Your task to perform on an android device: Go to Android settings Image 0: 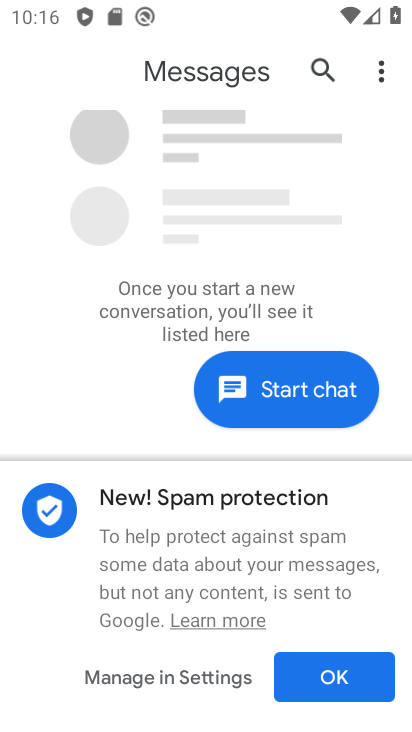
Step 0: press home button
Your task to perform on an android device: Go to Android settings Image 1: 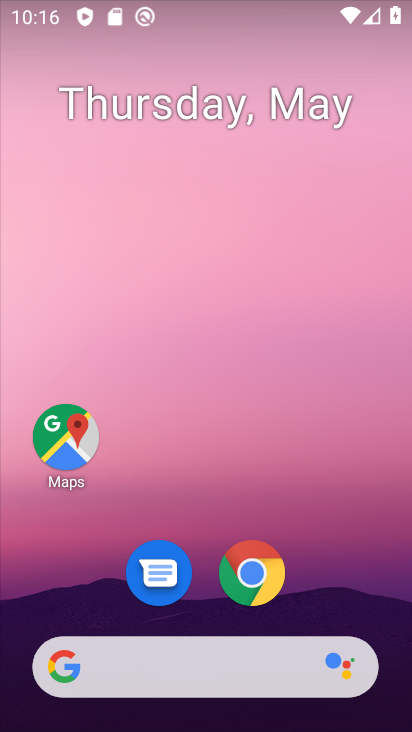
Step 1: drag from (329, 572) to (340, 196)
Your task to perform on an android device: Go to Android settings Image 2: 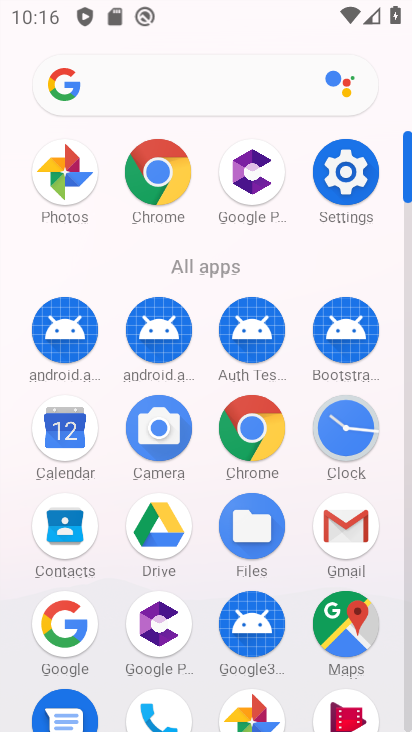
Step 2: click (332, 177)
Your task to perform on an android device: Go to Android settings Image 3: 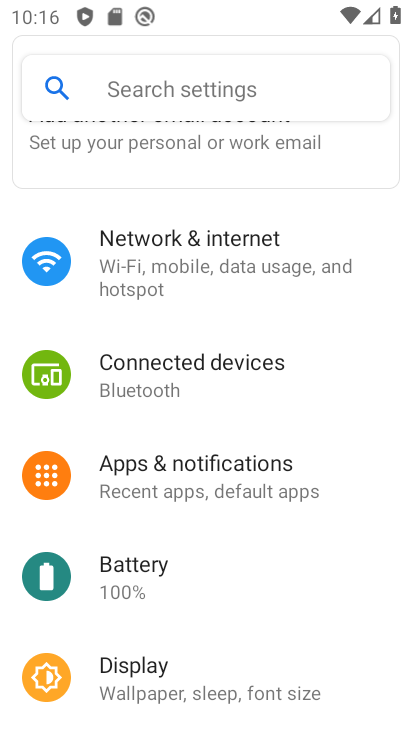
Step 3: task complete